Your task to perform on an android device: open sync settings in chrome Image 0: 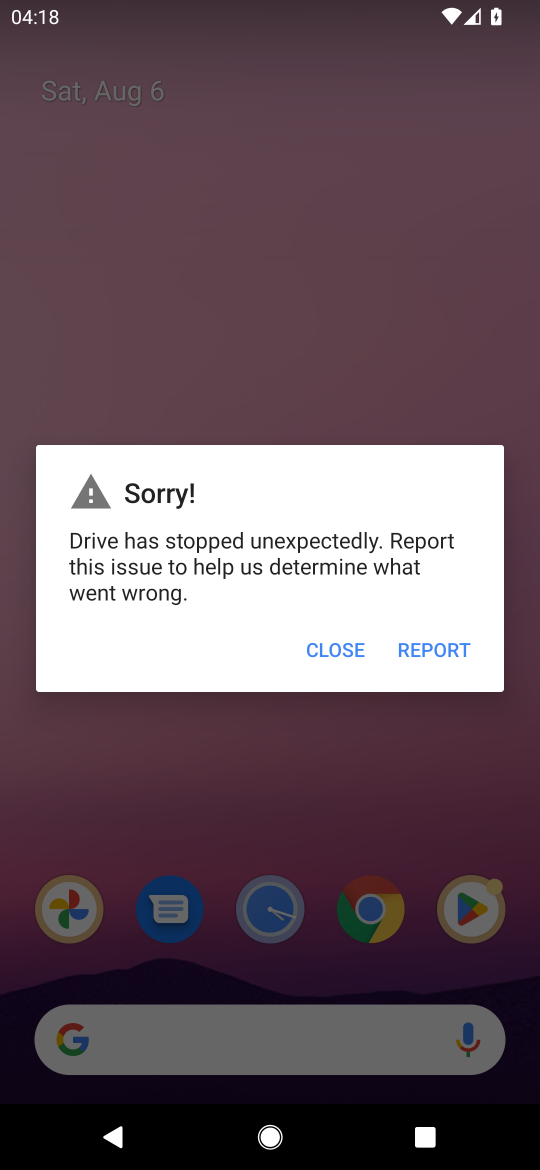
Step 0: click (307, 655)
Your task to perform on an android device: open sync settings in chrome Image 1: 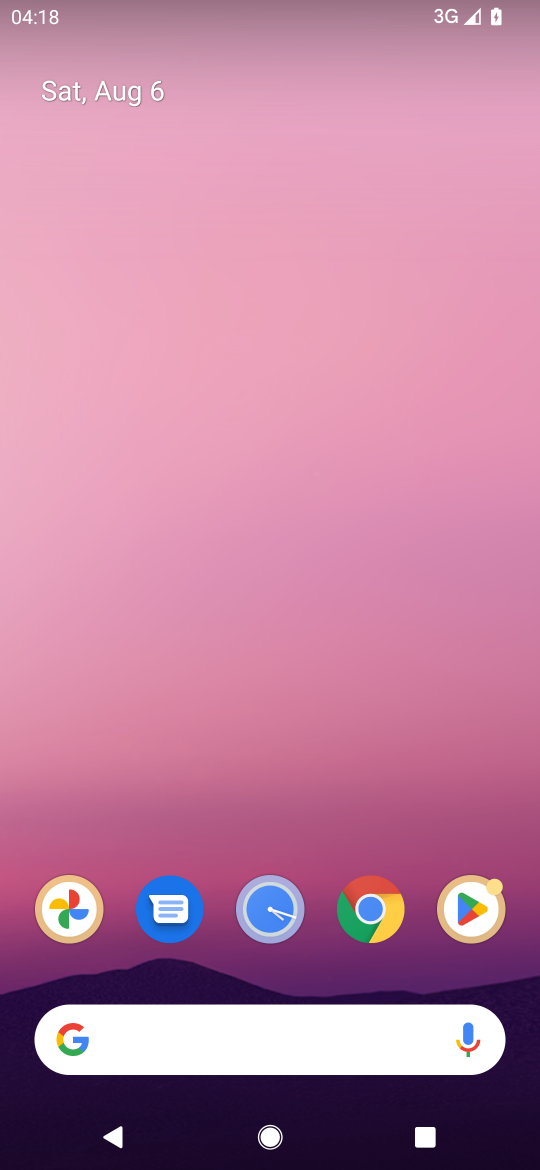
Step 1: click (381, 911)
Your task to perform on an android device: open sync settings in chrome Image 2: 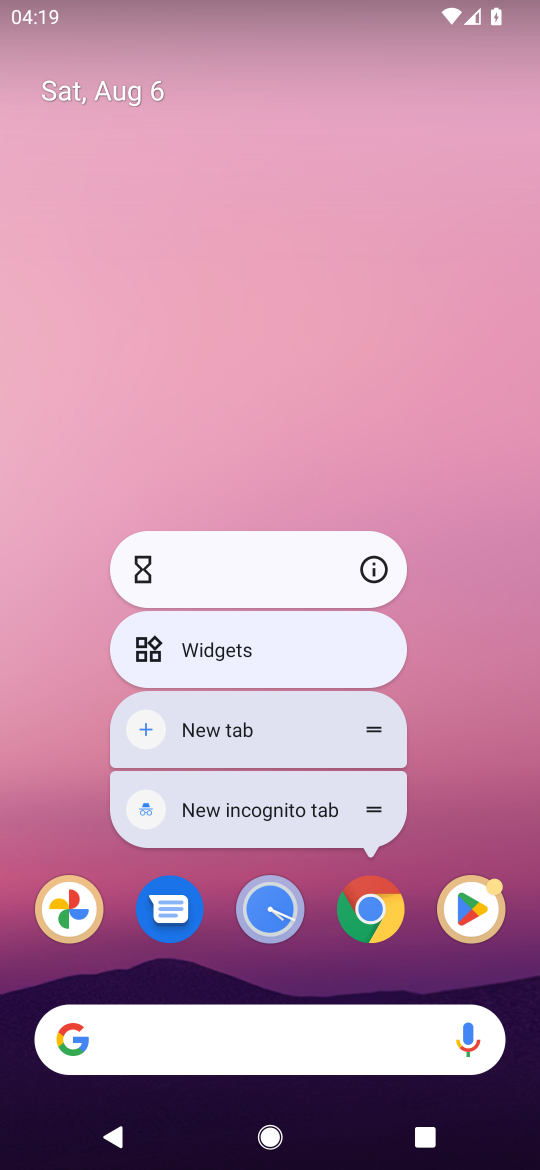
Step 2: click (371, 896)
Your task to perform on an android device: open sync settings in chrome Image 3: 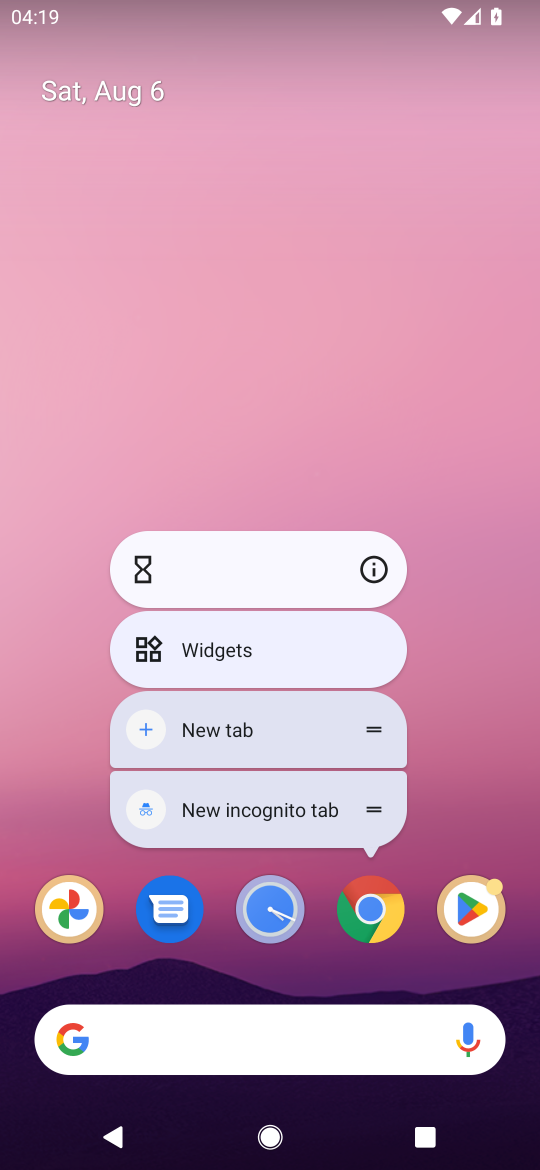
Step 3: click (368, 908)
Your task to perform on an android device: open sync settings in chrome Image 4: 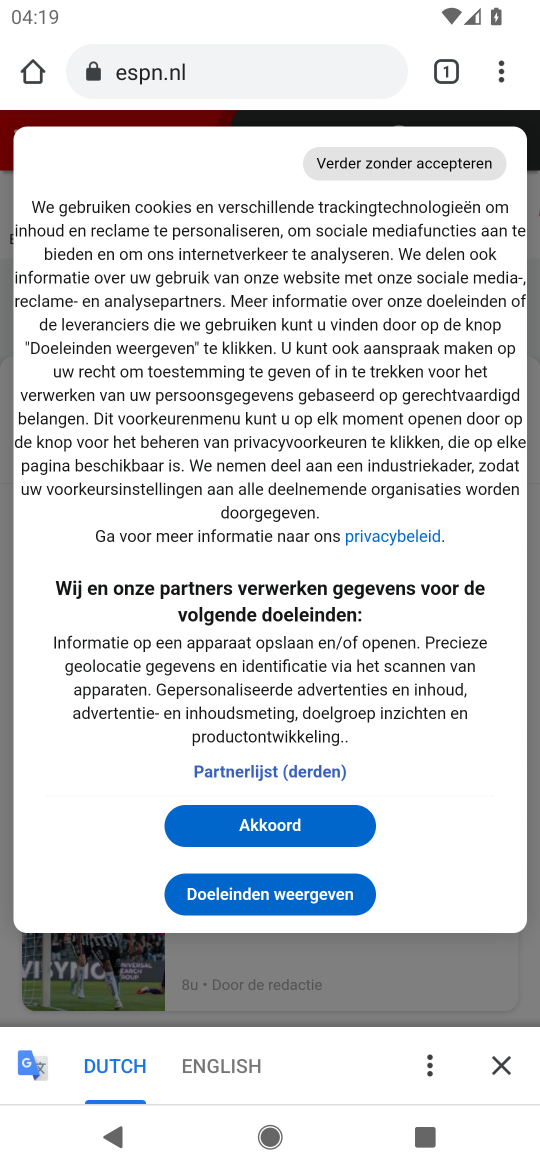
Step 4: drag from (501, 71) to (260, 896)
Your task to perform on an android device: open sync settings in chrome Image 5: 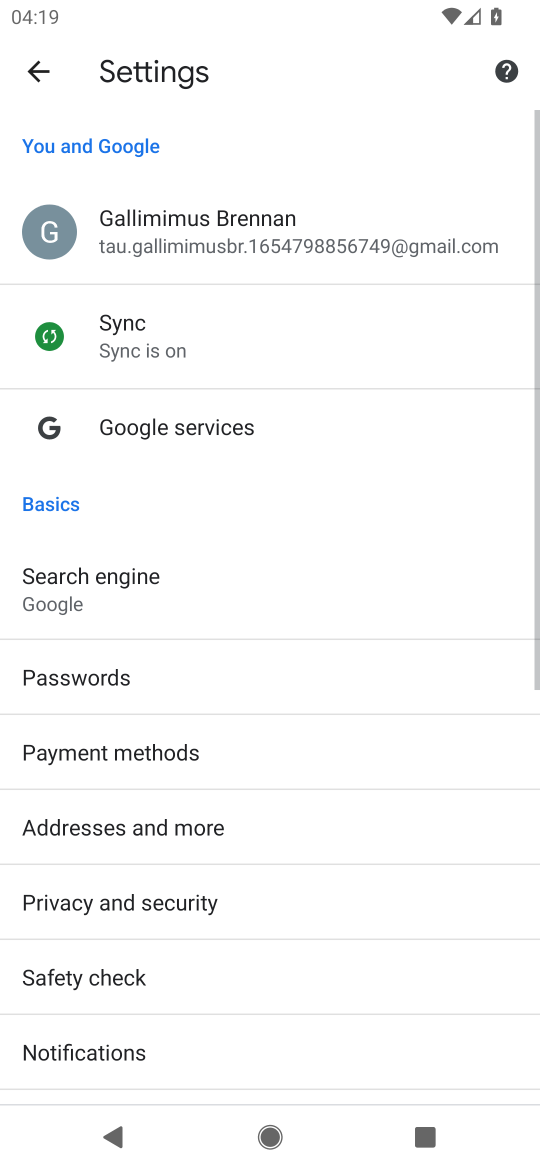
Step 5: click (217, 1038)
Your task to perform on an android device: open sync settings in chrome Image 6: 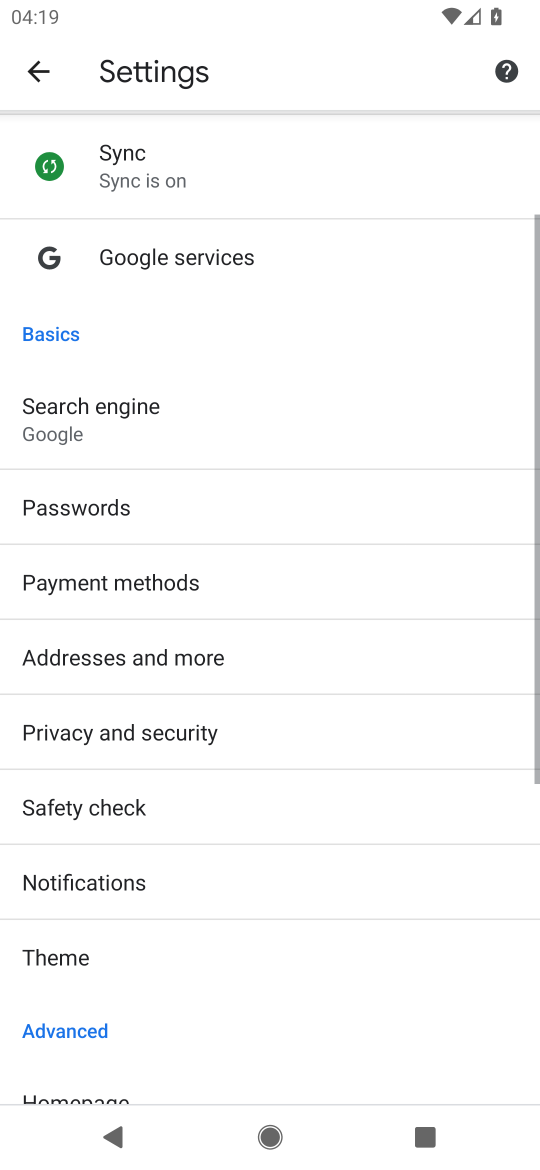
Step 6: click (241, 261)
Your task to perform on an android device: open sync settings in chrome Image 7: 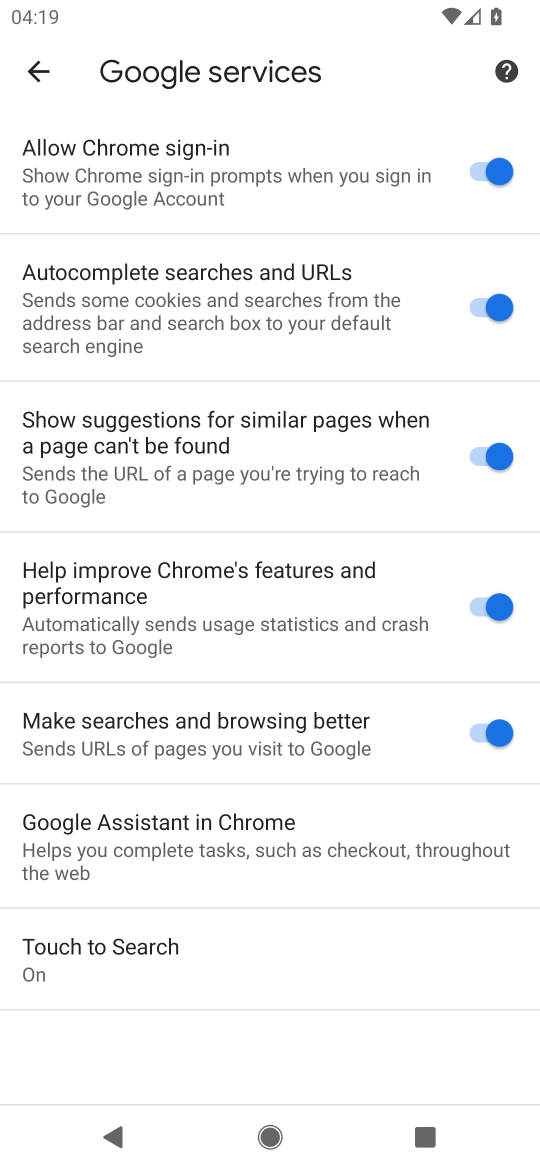
Step 7: click (36, 74)
Your task to perform on an android device: open sync settings in chrome Image 8: 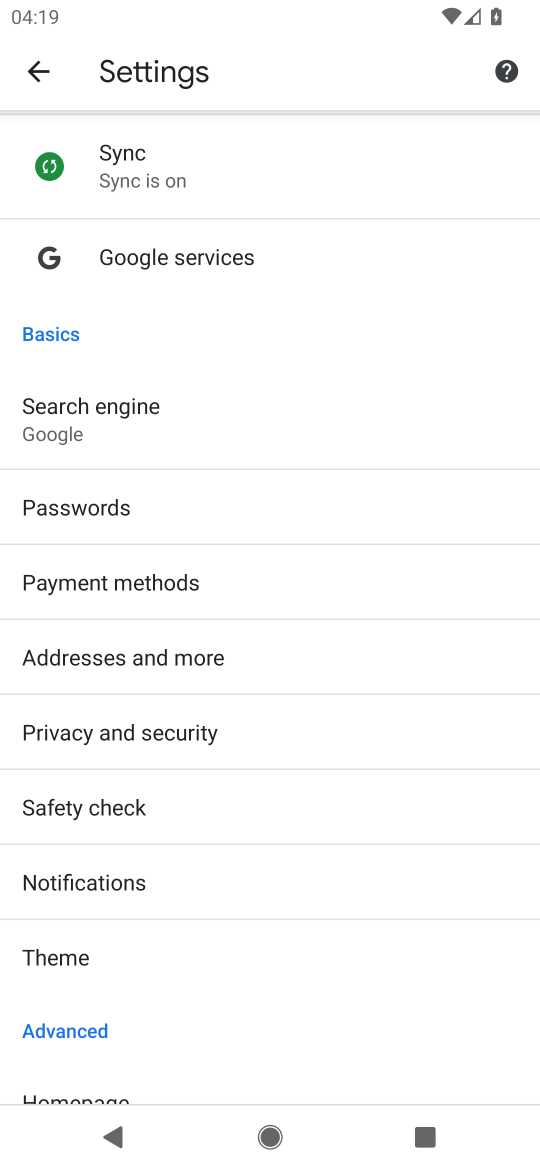
Step 8: drag from (314, 427) to (314, 1095)
Your task to perform on an android device: open sync settings in chrome Image 9: 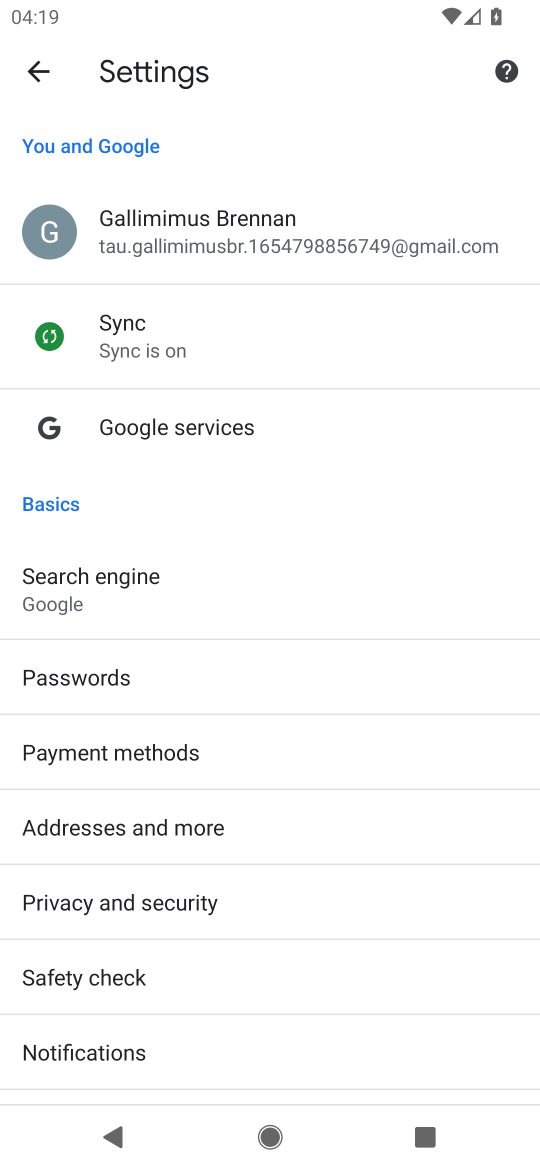
Step 9: click (270, 228)
Your task to perform on an android device: open sync settings in chrome Image 10: 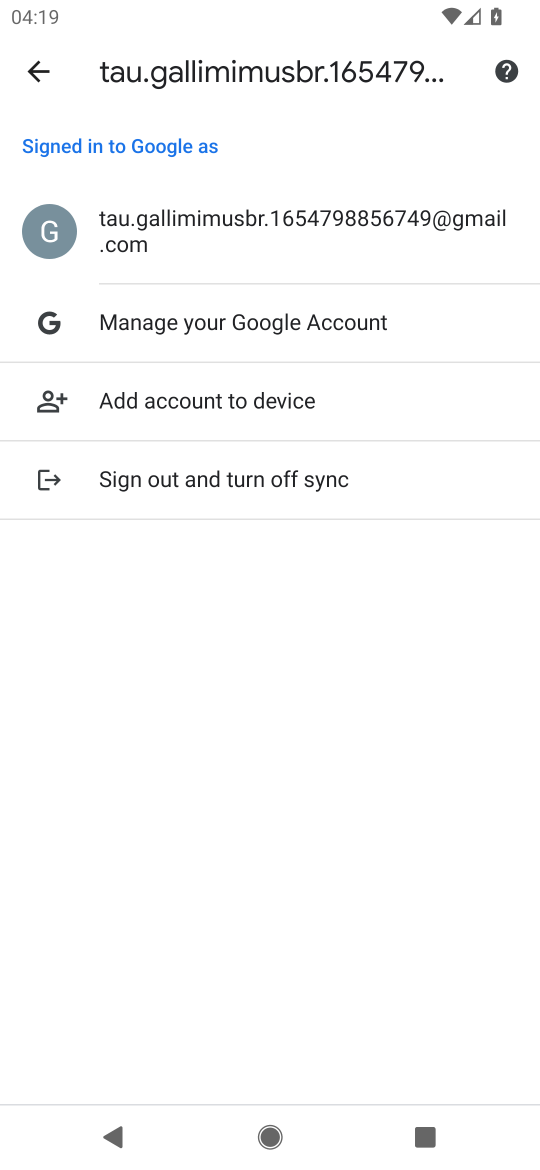
Step 10: click (34, 48)
Your task to perform on an android device: open sync settings in chrome Image 11: 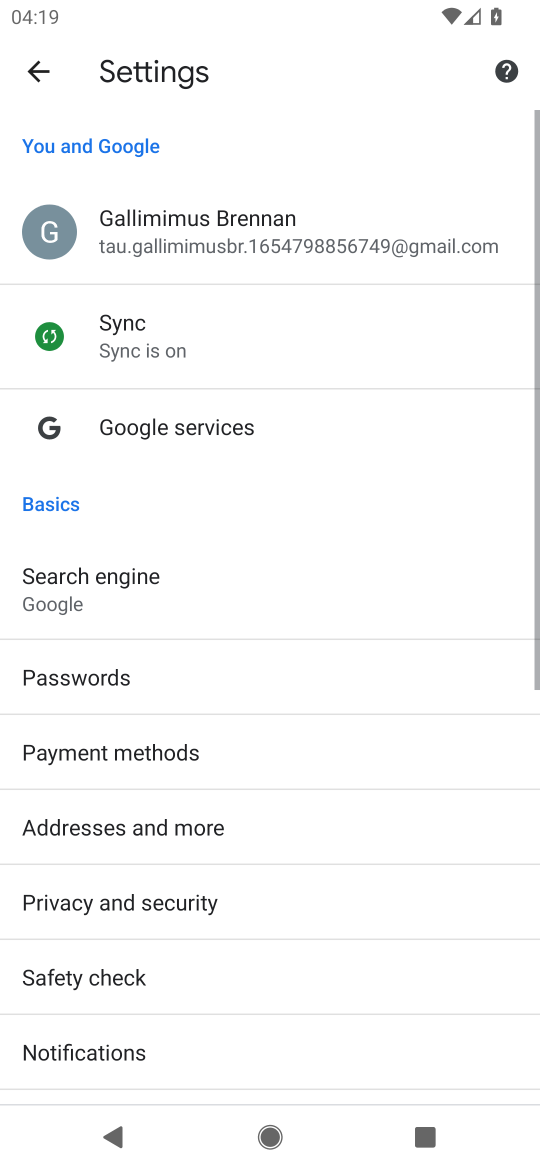
Step 11: click (237, 334)
Your task to perform on an android device: open sync settings in chrome Image 12: 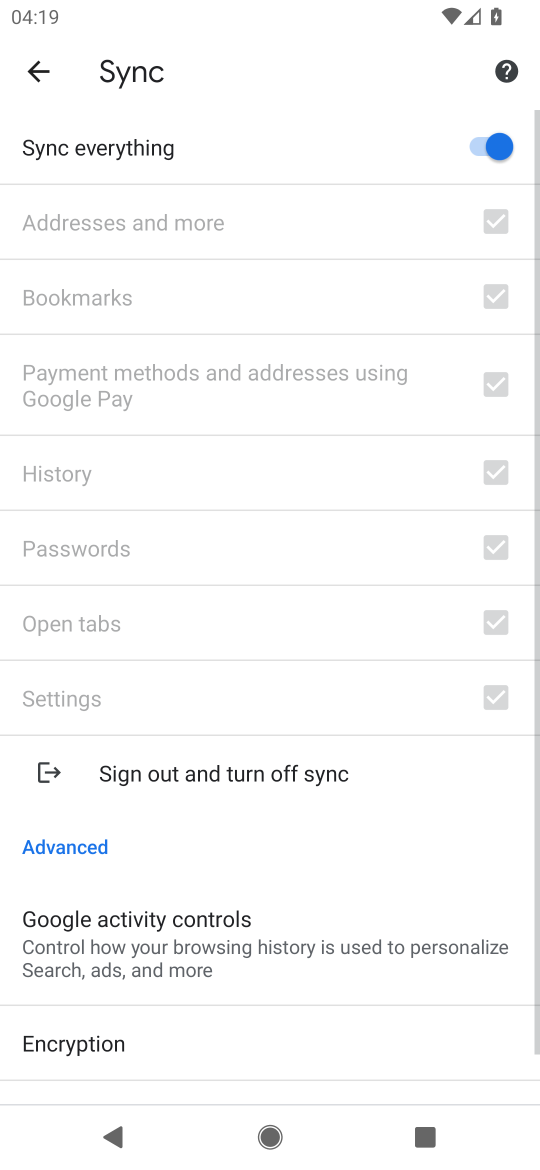
Step 12: task complete